Your task to perform on an android device: search for starred emails in the gmail app Image 0: 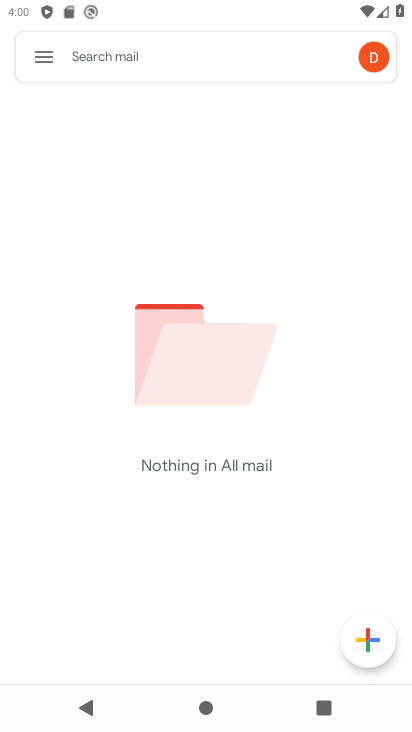
Step 0: press home button
Your task to perform on an android device: search for starred emails in the gmail app Image 1: 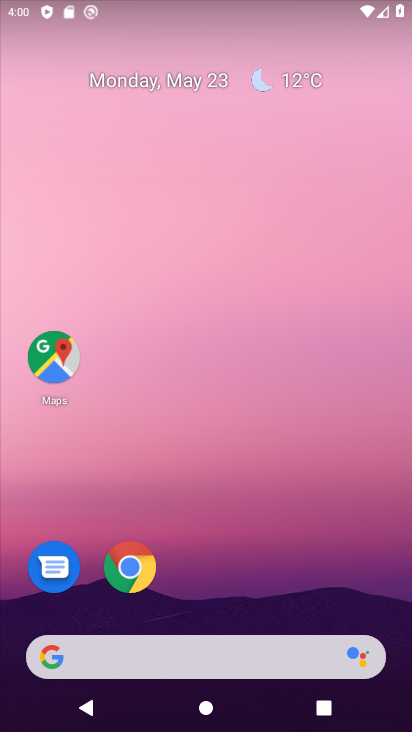
Step 1: drag from (126, 620) to (164, 150)
Your task to perform on an android device: search for starred emails in the gmail app Image 2: 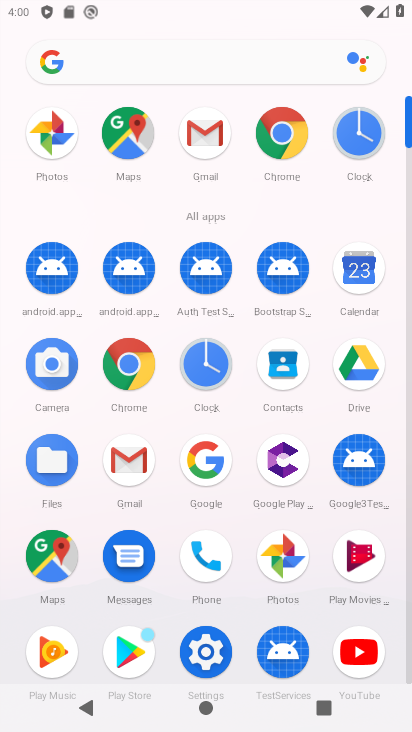
Step 2: click (130, 460)
Your task to perform on an android device: search for starred emails in the gmail app Image 3: 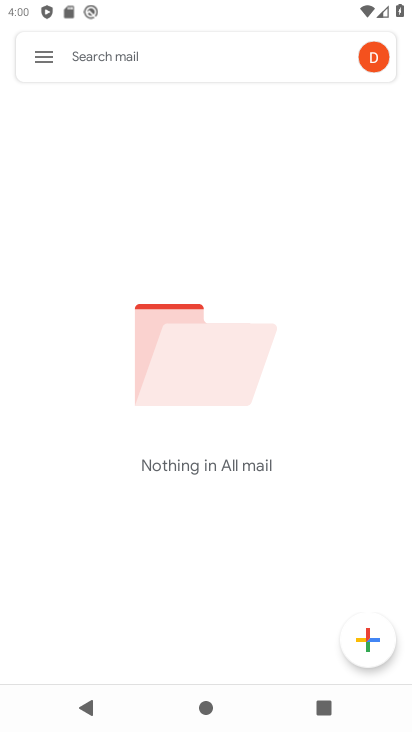
Step 3: click (51, 56)
Your task to perform on an android device: search for starred emails in the gmail app Image 4: 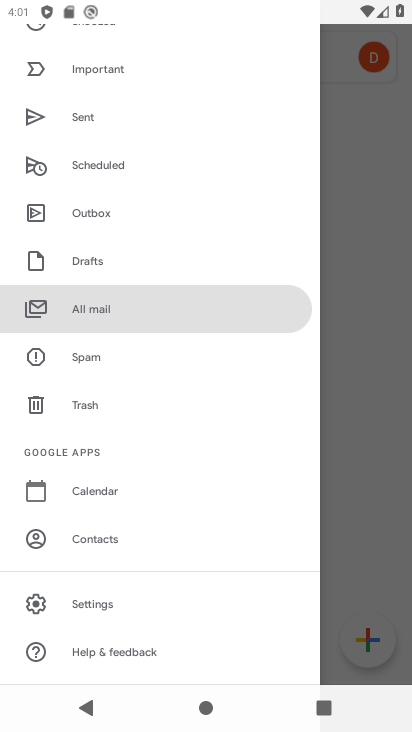
Step 4: drag from (107, 201) to (105, 509)
Your task to perform on an android device: search for starred emails in the gmail app Image 5: 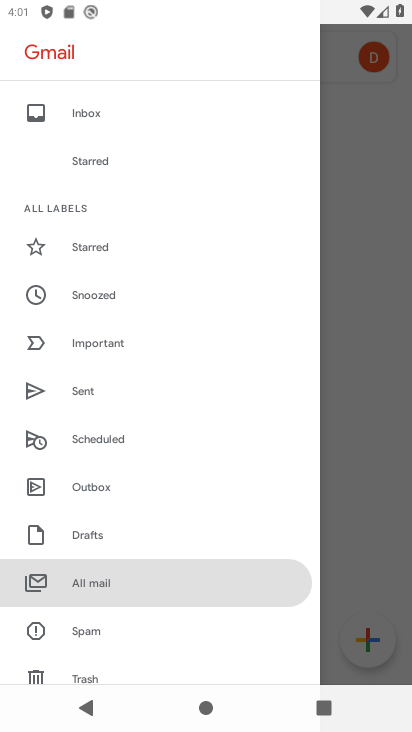
Step 5: click (84, 253)
Your task to perform on an android device: search for starred emails in the gmail app Image 6: 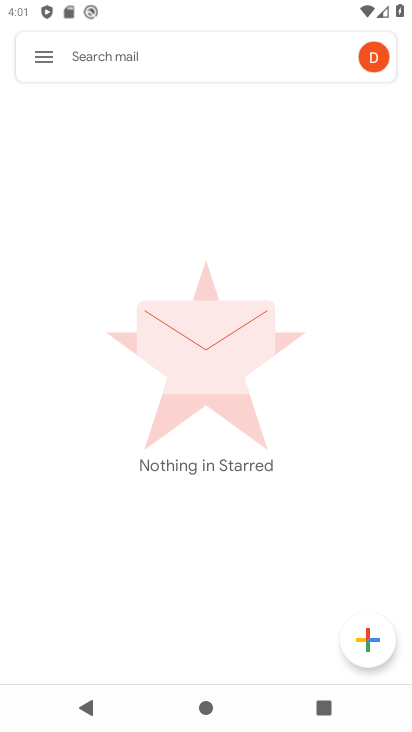
Step 6: task complete